Your task to perform on an android device: clear history in the chrome app Image 0: 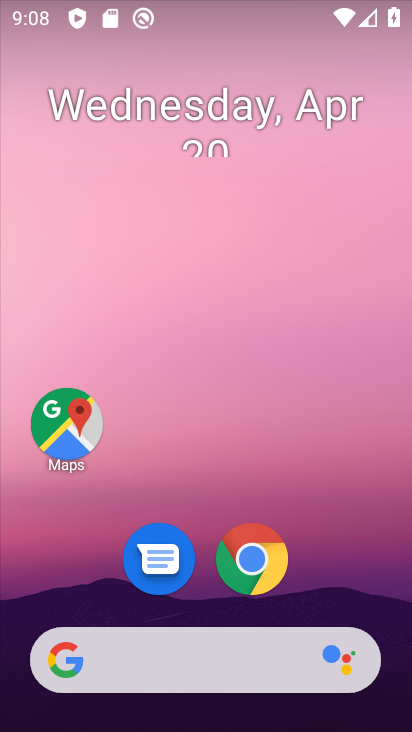
Step 0: click (228, 556)
Your task to perform on an android device: clear history in the chrome app Image 1: 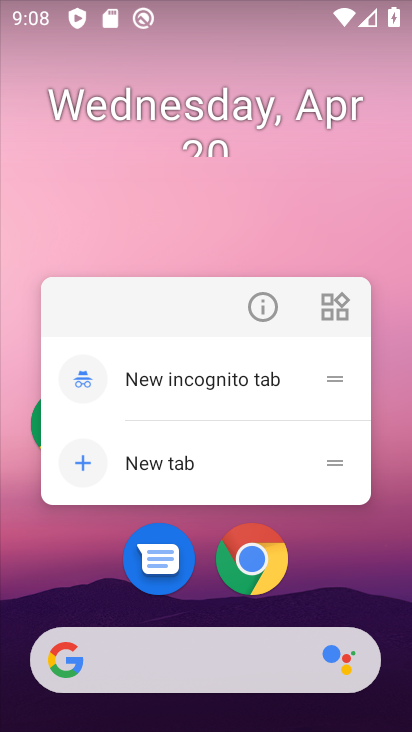
Step 1: click (240, 540)
Your task to perform on an android device: clear history in the chrome app Image 2: 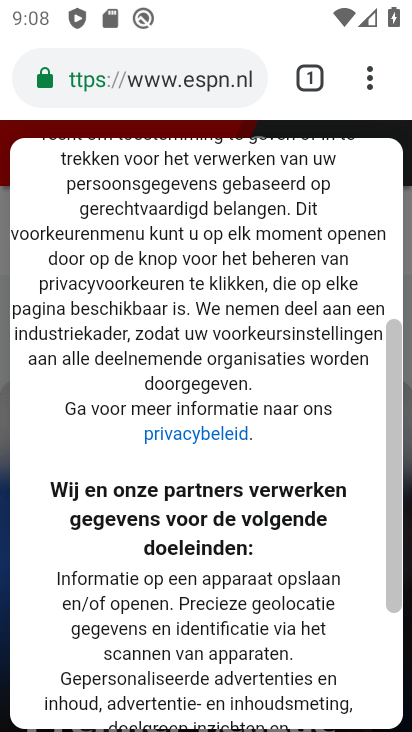
Step 2: click (362, 70)
Your task to perform on an android device: clear history in the chrome app Image 3: 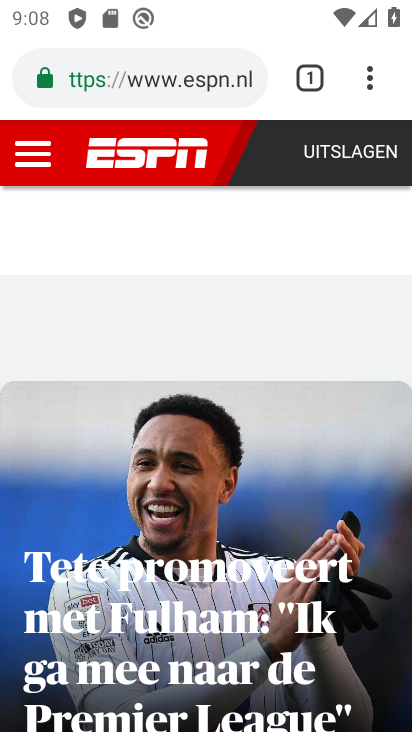
Step 3: drag from (362, 70) to (98, 509)
Your task to perform on an android device: clear history in the chrome app Image 4: 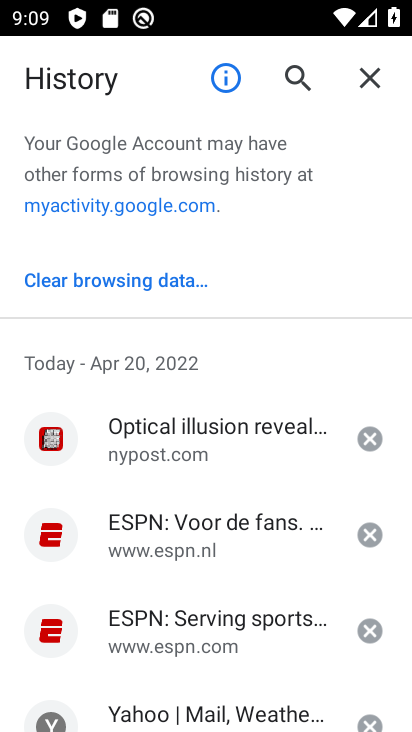
Step 4: click (90, 285)
Your task to perform on an android device: clear history in the chrome app Image 5: 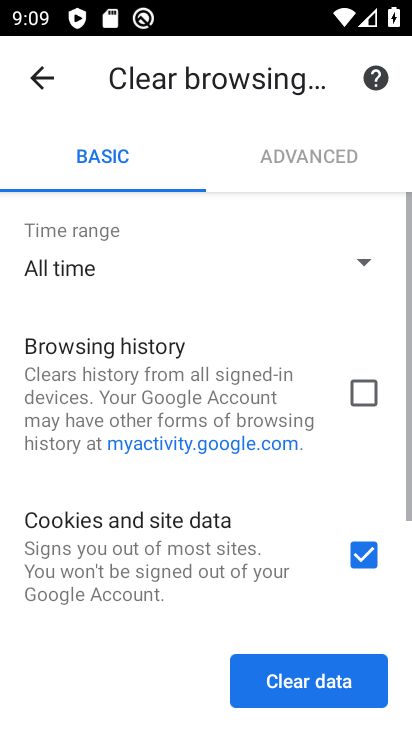
Step 5: click (367, 386)
Your task to perform on an android device: clear history in the chrome app Image 6: 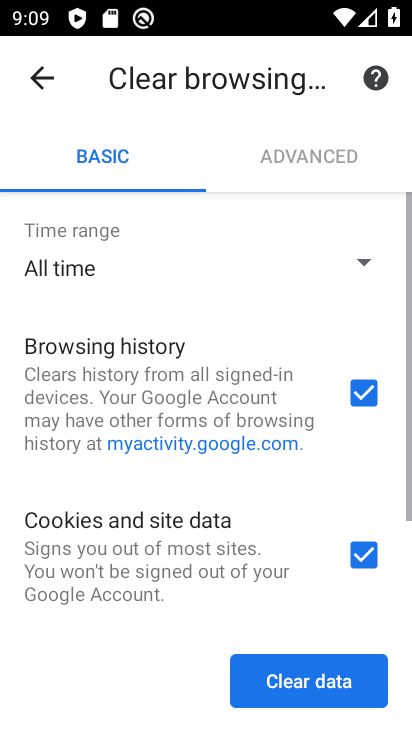
Step 6: click (274, 689)
Your task to perform on an android device: clear history in the chrome app Image 7: 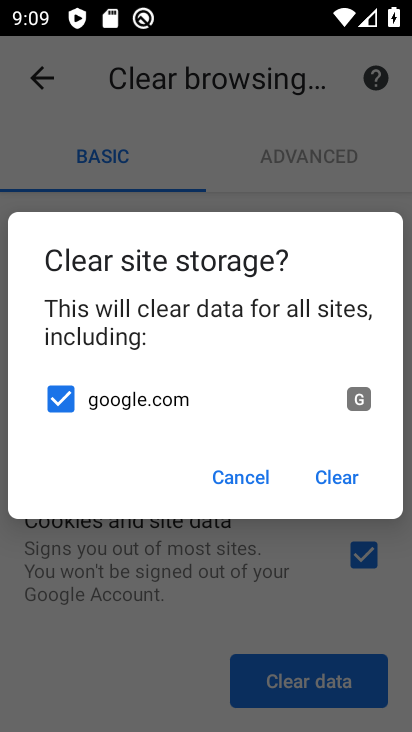
Step 7: click (350, 466)
Your task to perform on an android device: clear history in the chrome app Image 8: 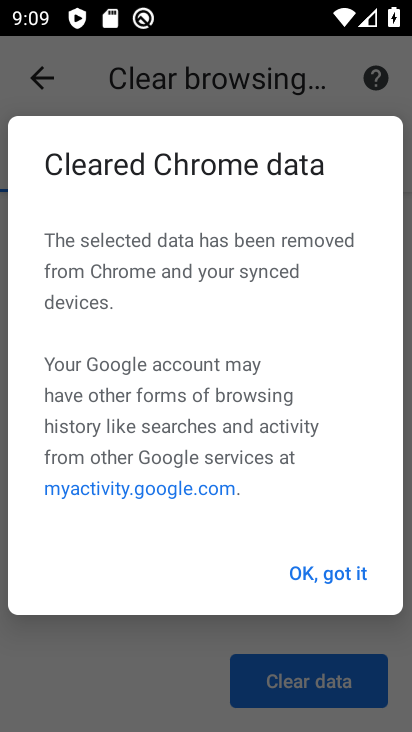
Step 8: click (357, 567)
Your task to perform on an android device: clear history in the chrome app Image 9: 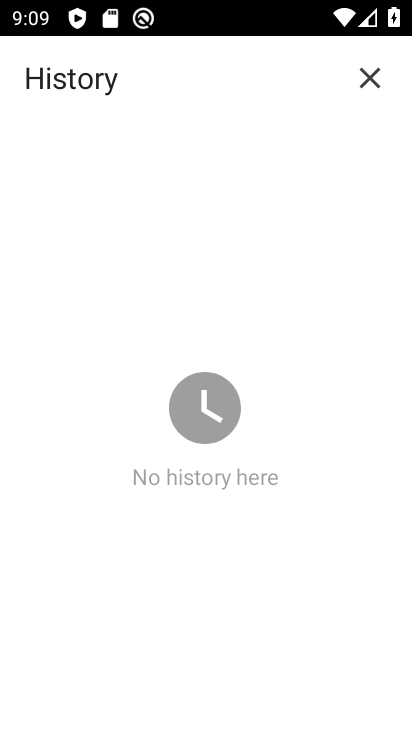
Step 9: task complete